Your task to perform on an android device: open a bookmark in the chrome app Image 0: 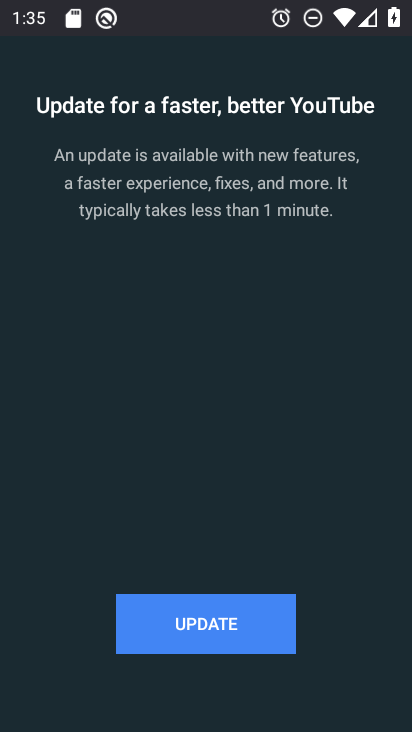
Step 0: press home button
Your task to perform on an android device: open a bookmark in the chrome app Image 1: 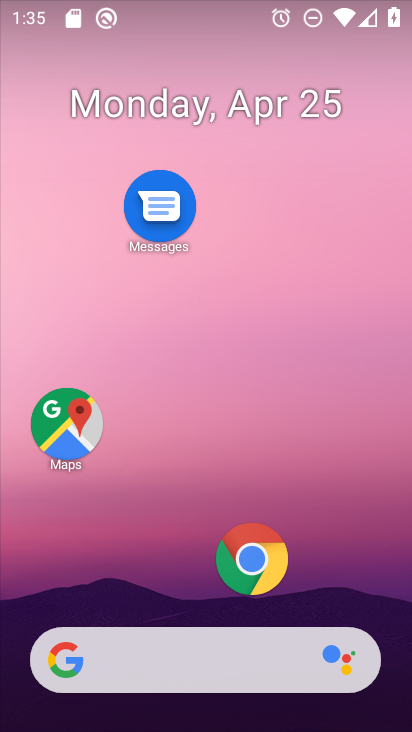
Step 1: click (251, 557)
Your task to perform on an android device: open a bookmark in the chrome app Image 2: 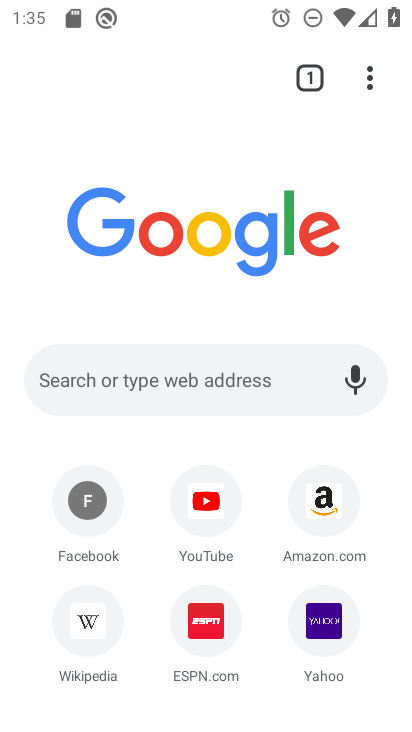
Step 2: click (366, 80)
Your task to perform on an android device: open a bookmark in the chrome app Image 3: 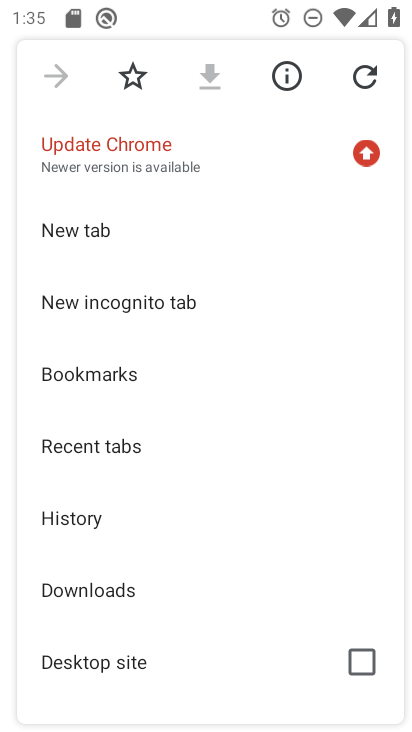
Step 3: click (179, 386)
Your task to perform on an android device: open a bookmark in the chrome app Image 4: 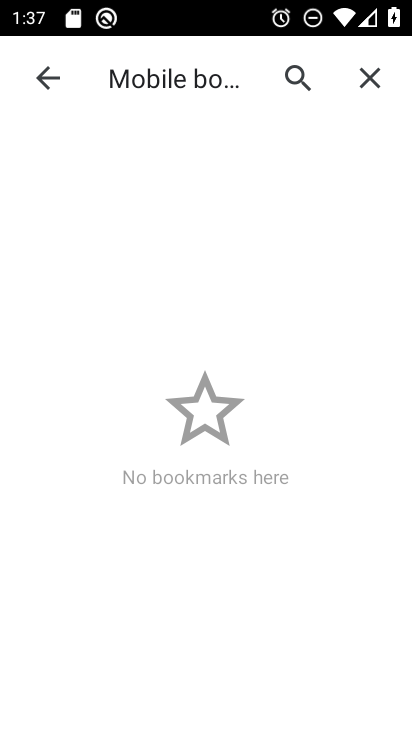
Step 4: task complete